Your task to perform on an android device: Open calendar and show me the first week of next month Image 0: 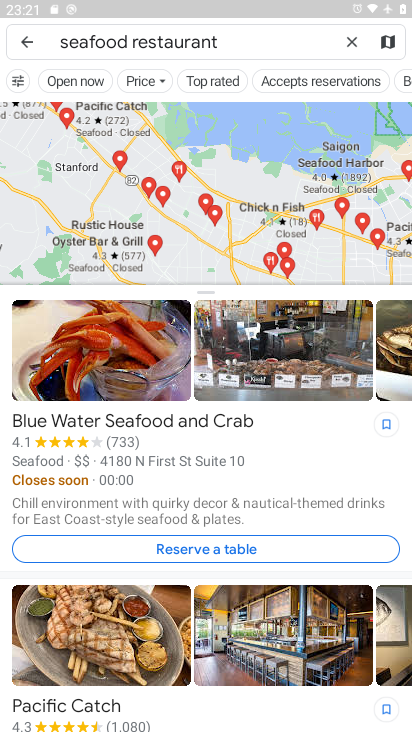
Step 0: press home button
Your task to perform on an android device: Open calendar and show me the first week of next month Image 1: 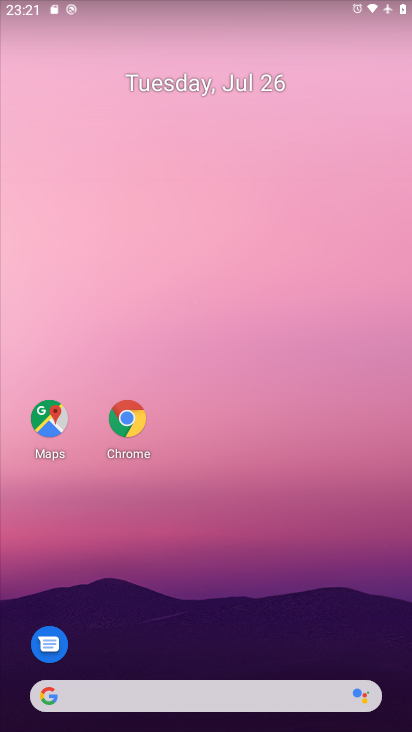
Step 1: drag from (275, 685) to (244, 117)
Your task to perform on an android device: Open calendar and show me the first week of next month Image 2: 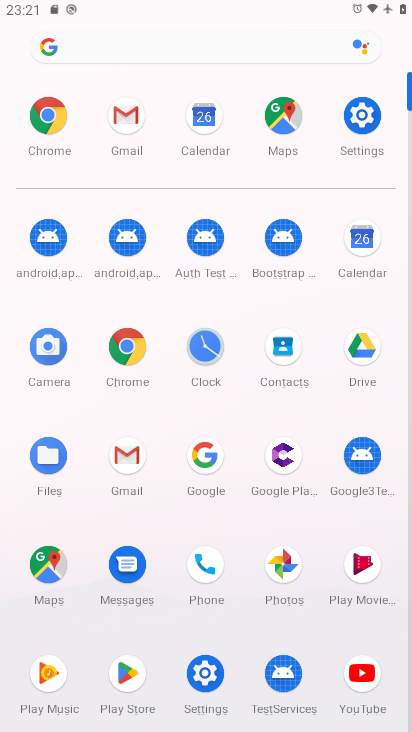
Step 2: click (348, 231)
Your task to perform on an android device: Open calendar and show me the first week of next month Image 3: 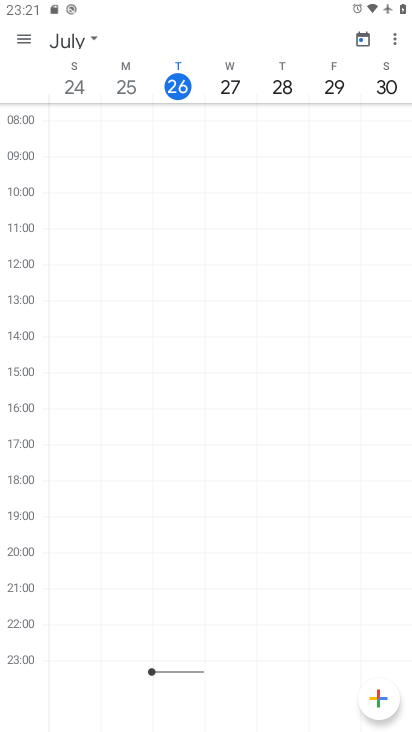
Step 3: task complete